Your task to perform on an android device: Open Google Chrome and open the bookmarks view Image 0: 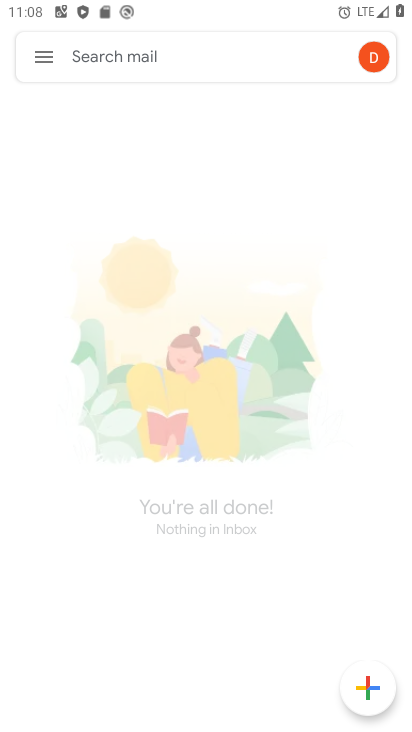
Step 0: press home button
Your task to perform on an android device: Open Google Chrome and open the bookmarks view Image 1: 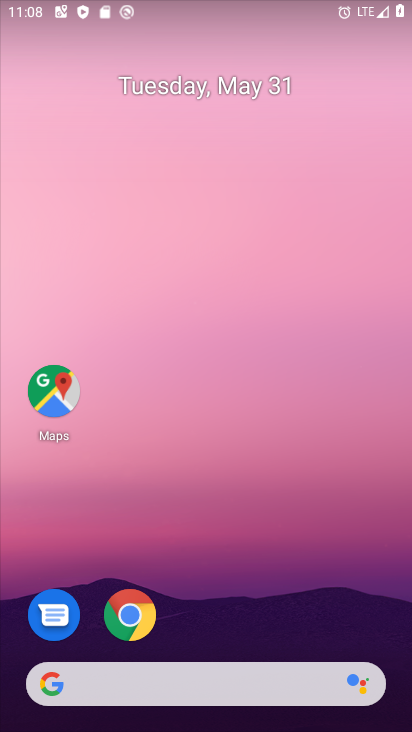
Step 1: drag from (308, 599) to (380, 0)
Your task to perform on an android device: Open Google Chrome and open the bookmarks view Image 2: 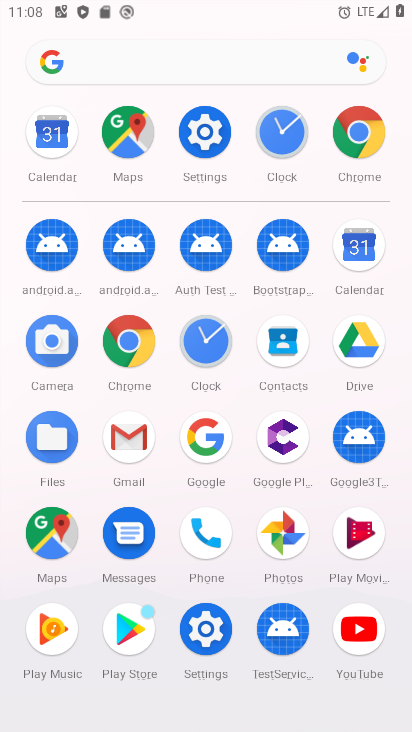
Step 2: click (351, 142)
Your task to perform on an android device: Open Google Chrome and open the bookmarks view Image 3: 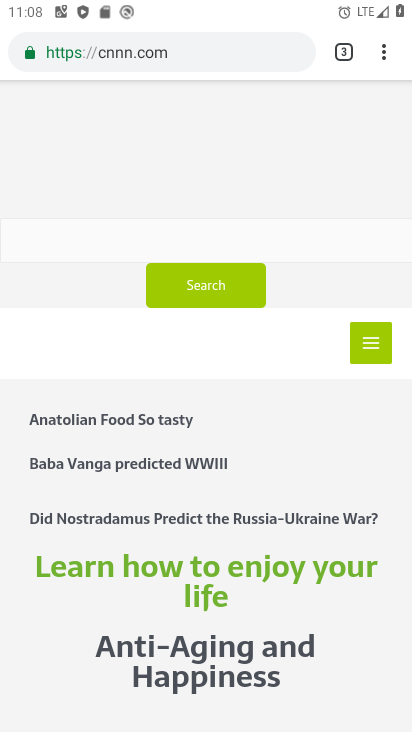
Step 3: task complete